Your task to perform on an android device: What's on my calendar tomorrow? Image 0: 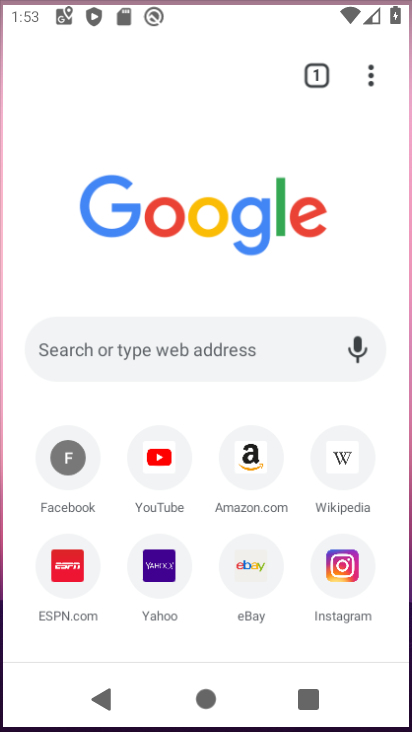
Step 0: click (266, 240)
Your task to perform on an android device: What's on my calendar tomorrow? Image 1: 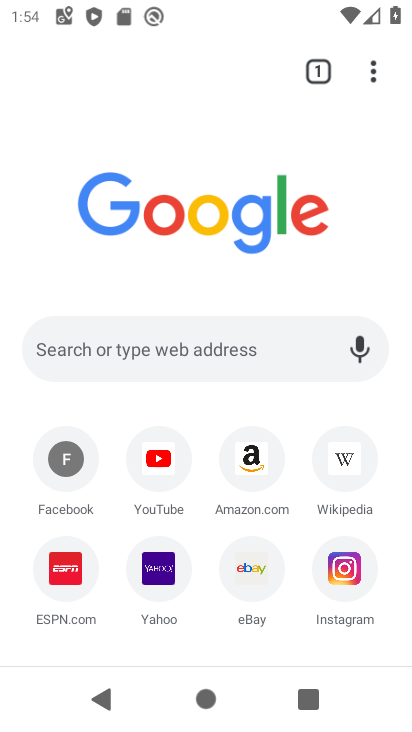
Step 1: drag from (207, 524) to (256, 211)
Your task to perform on an android device: What's on my calendar tomorrow? Image 2: 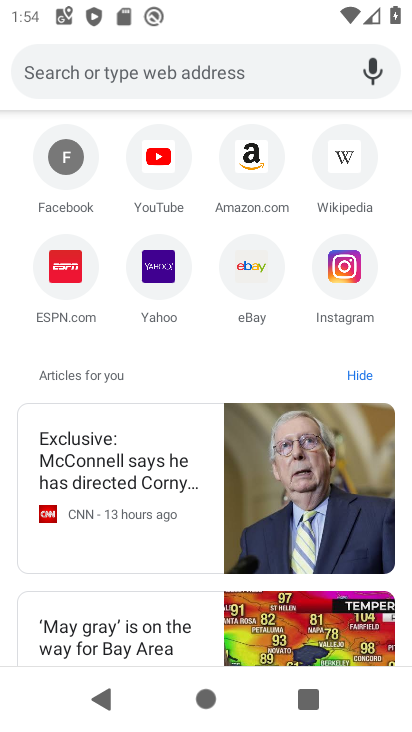
Step 2: press home button
Your task to perform on an android device: What's on my calendar tomorrow? Image 3: 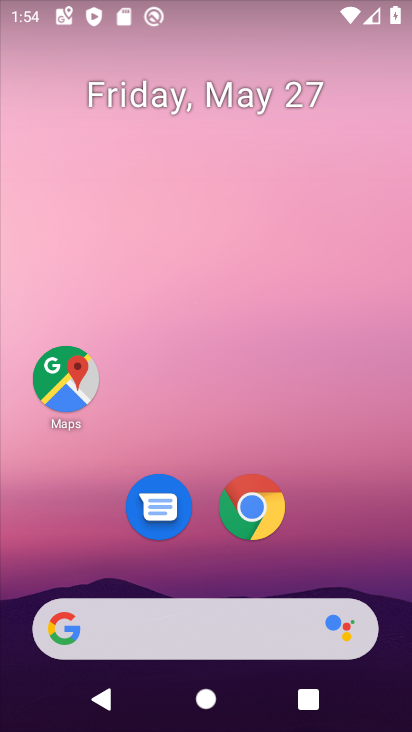
Step 3: drag from (192, 565) to (228, 145)
Your task to perform on an android device: What's on my calendar tomorrow? Image 4: 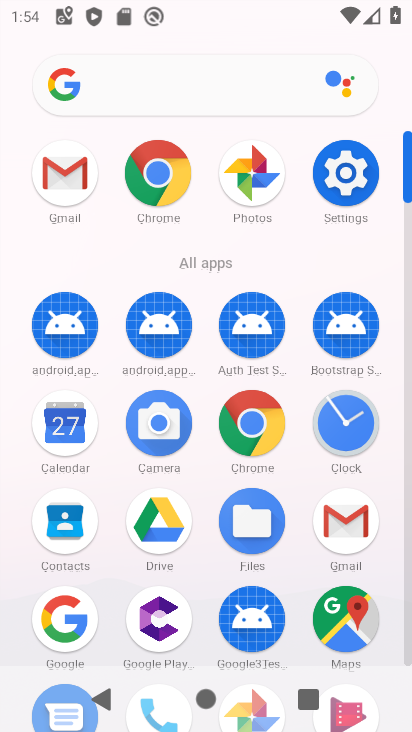
Step 4: click (62, 408)
Your task to perform on an android device: What's on my calendar tomorrow? Image 5: 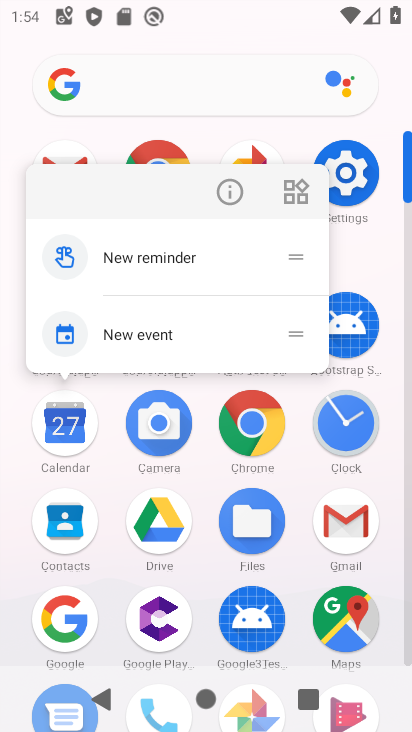
Step 5: click (232, 186)
Your task to perform on an android device: What's on my calendar tomorrow? Image 6: 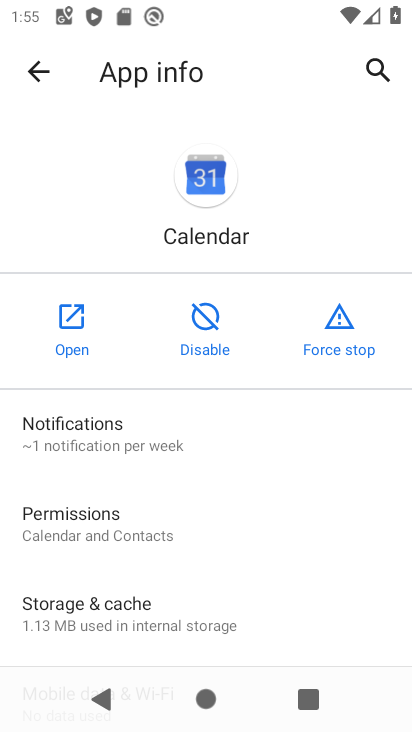
Step 6: click (68, 332)
Your task to perform on an android device: What's on my calendar tomorrow? Image 7: 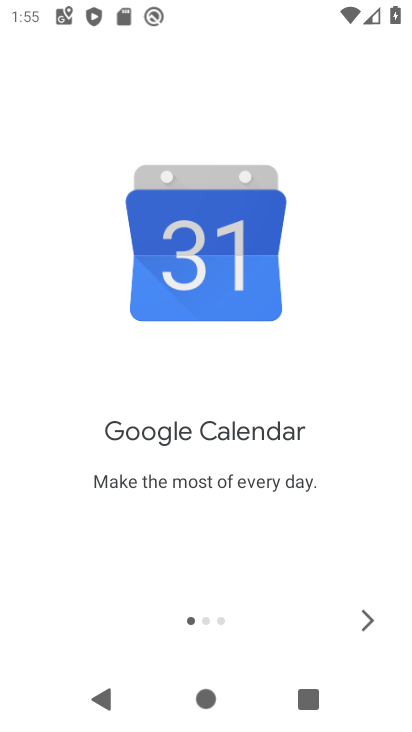
Step 7: click (370, 624)
Your task to perform on an android device: What's on my calendar tomorrow? Image 8: 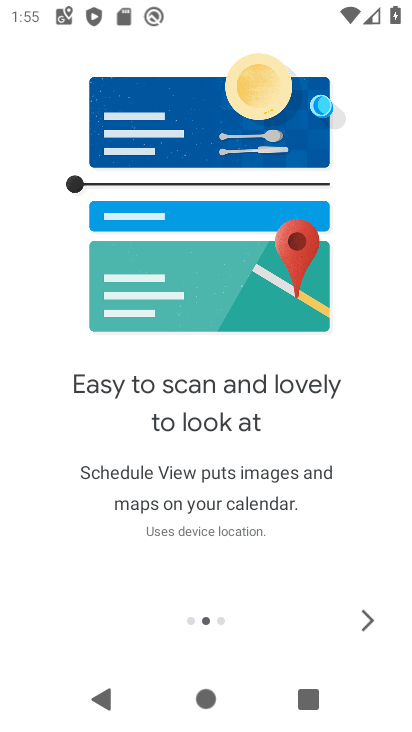
Step 8: click (365, 605)
Your task to perform on an android device: What's on my calendar tomorrow? Image 9: 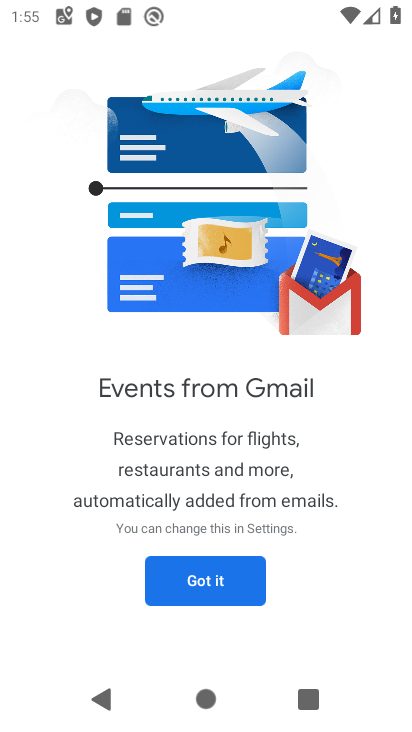
Step 9: click (191, 590)
Your task to perform on an android device: What's on my calendar tomorrow? Image 10: 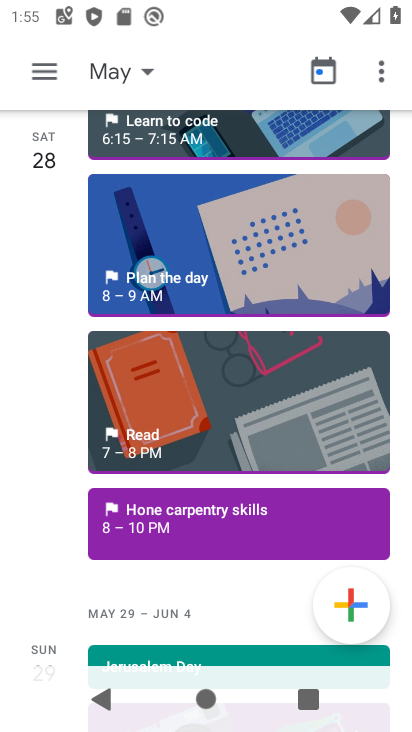
Step 10: click (144, 47)
Your task to perform on an android device: What's on my calendar tomorrow? Image 11: 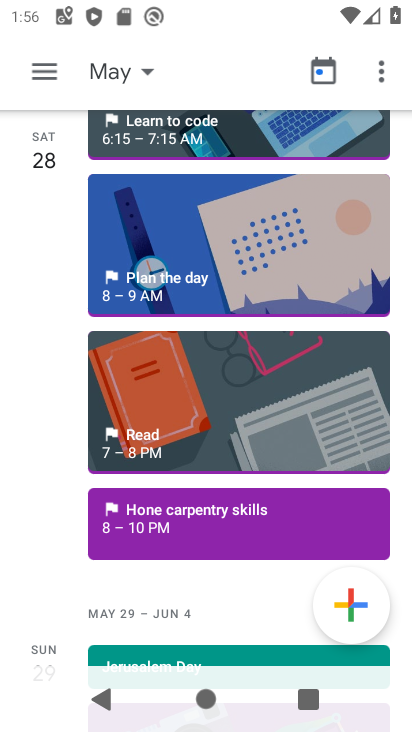
Step 11: drag from (241, 515) to (270, 320)
Your task to perform on an android device: What's on my calendar tomorrow? Image 12: 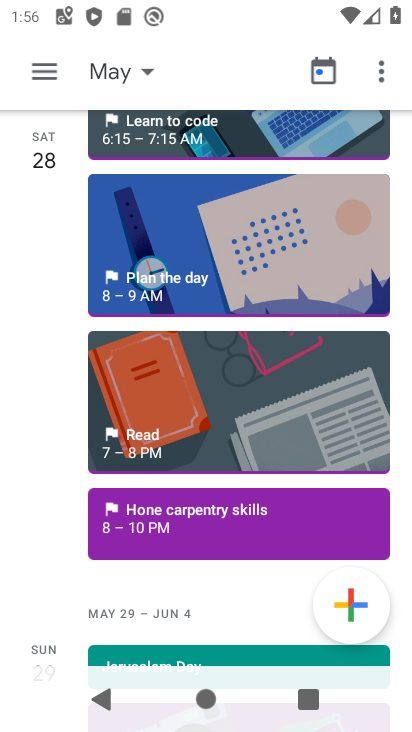
Step 12: click (108, 60)
Your task to perform on an android device: What's on my calendar tomorrow? Image 13: 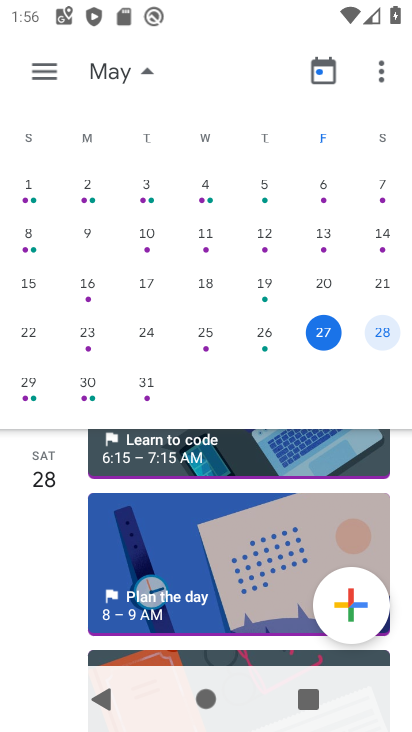
Step 13: click (378, 344)
Your task to perform on an android device: What's on my calendar tomorrow? Image 14: 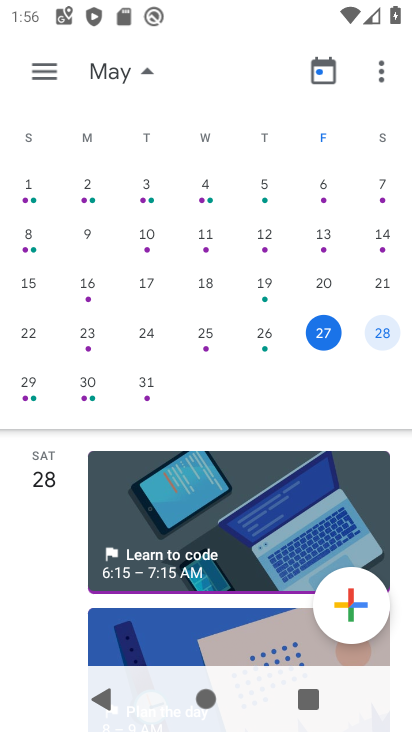
Step 14: task complete